Your task to perform on an android device: star an email in the gmail app Image 0: 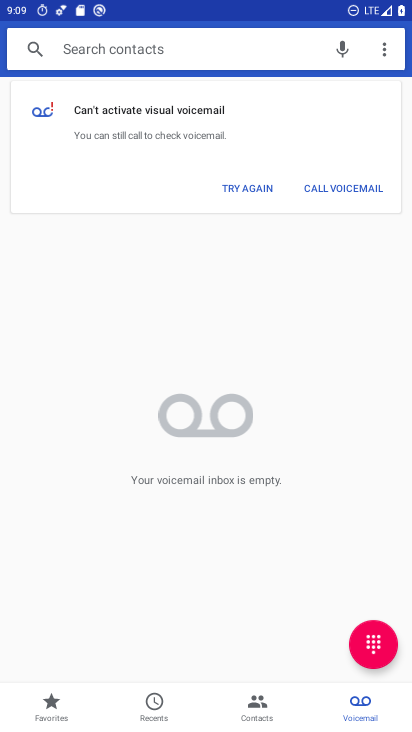
Step 0: drag from (318, 482) to (267, 251)
Your task to perform on an android device: star an email in the gmail app Image 1: 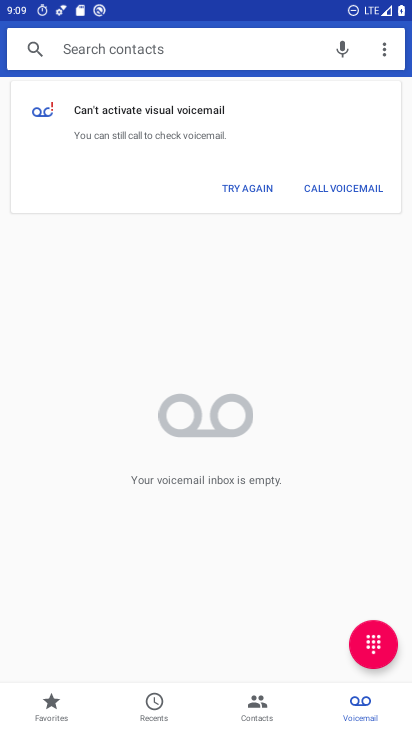
Step 1: drag from (216, 600) to (234, 386)
Your task to perform on an android device: star an email in the gmail app Image 2: 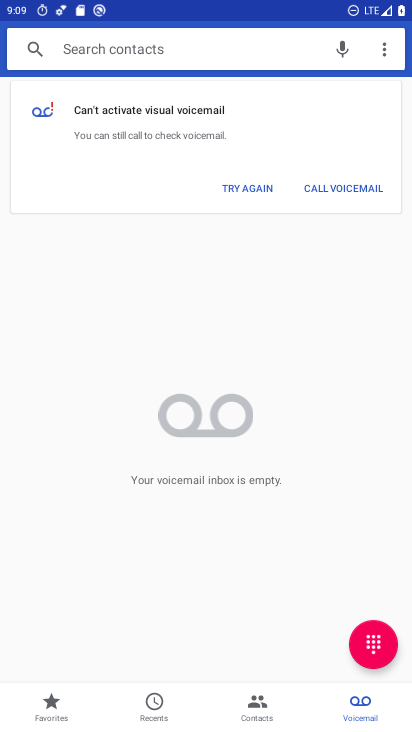
Step 2: drag from (236, 627) to (216, 454)
Your task to perform on an android device: star an email in the gmail app Image 3: 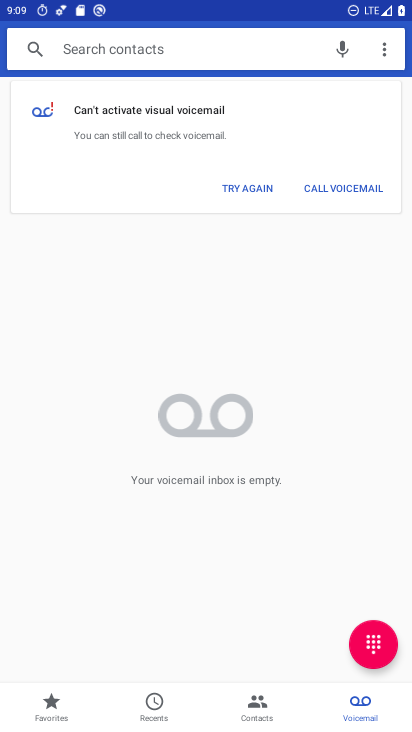
Step 3: click (164, 642)
Your task to perform on an android device: star an email in the gmail app Image 4: 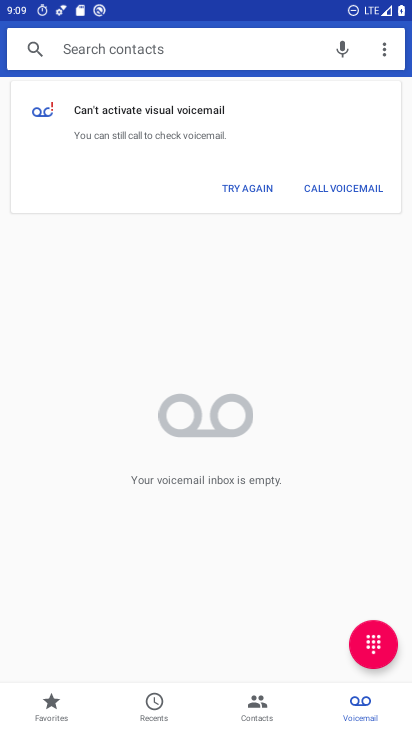
Step 4: click (179, 609)
Your task to perform on an android device: star an email in the gmail app Image 5: 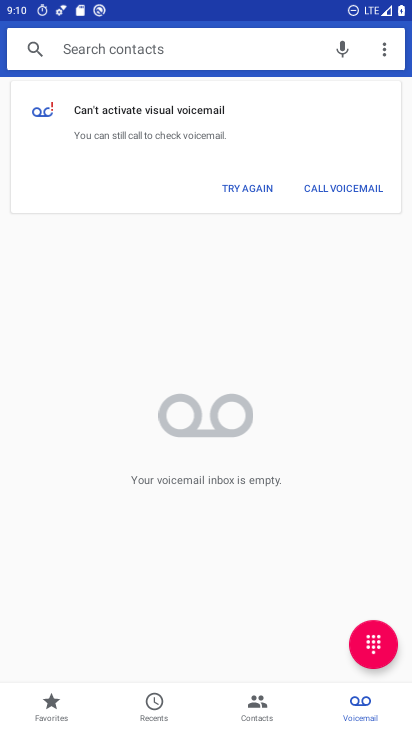
Step 5: drag from (158, 562) to (161, 316)
Your task to perform on an android device: star an email in the gmail app Image 6: 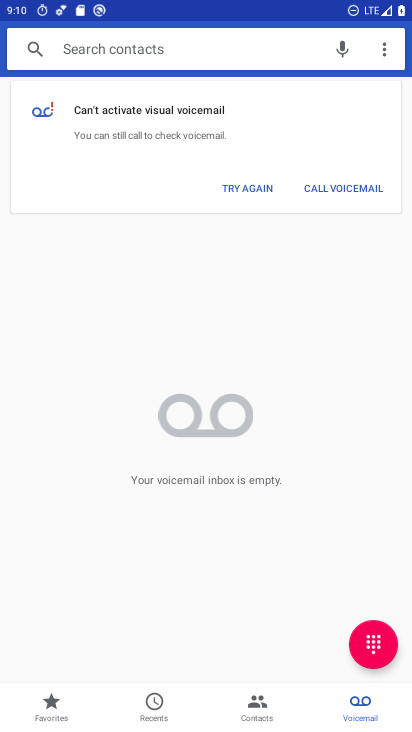
Step 6: press home button
Your task to perform on an android device: star an email in the gmail app Image 7: 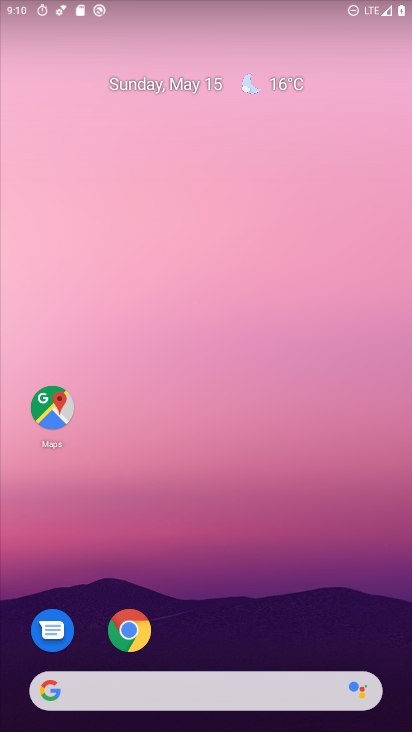
Step 7: drag from (209, 355) to (260, 198)
Your task to perform on an android device: star an email in the gmail app Image 8: 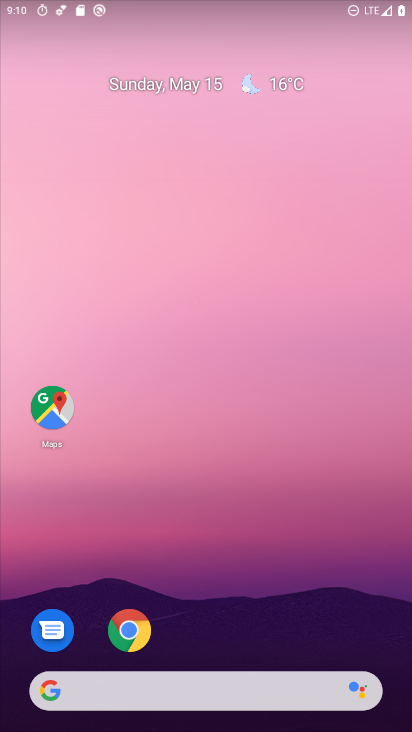
Step 8: drag from (138, 342) to (162, 168)
Your task to perform on an android device: star an email in the gmail app Image 9: 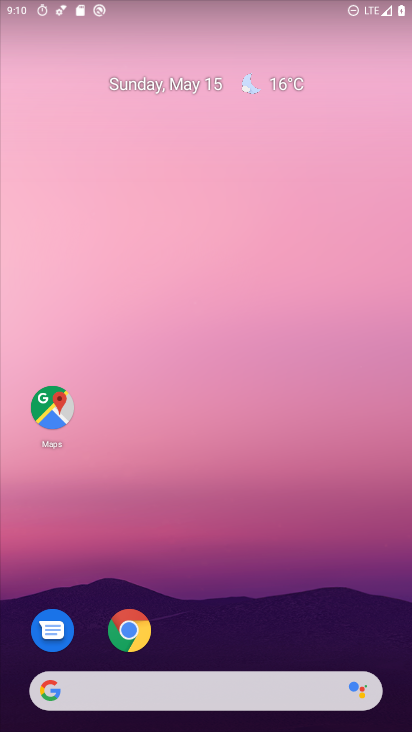
Step 9: drag from (199, 619) to (279, 182)
Your task to perform on an android device: star an email in the gmail app Image 10: 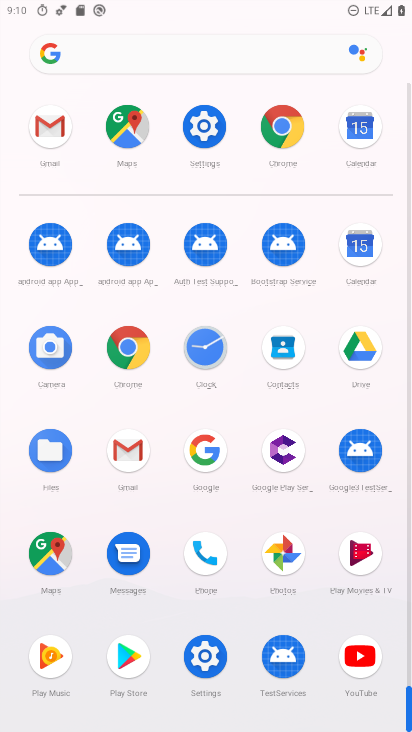
Step 10: click (128, 435)
Your task to perform on an android device: star an email in the gmail app Image 11: 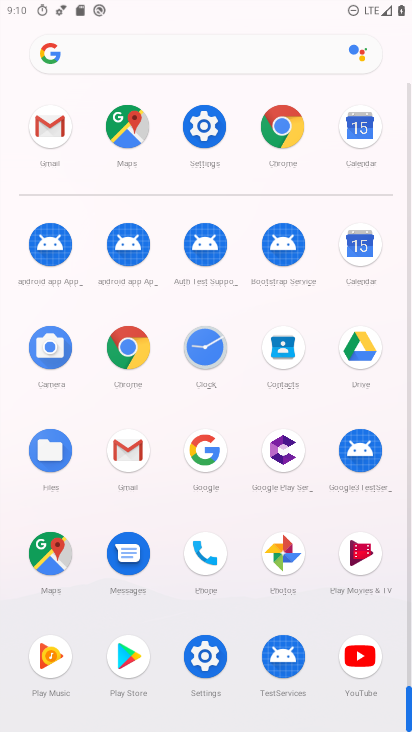
Step 11: click (128, 436)
Your task to perform on an android device: star an email in the gmail app Image 12: 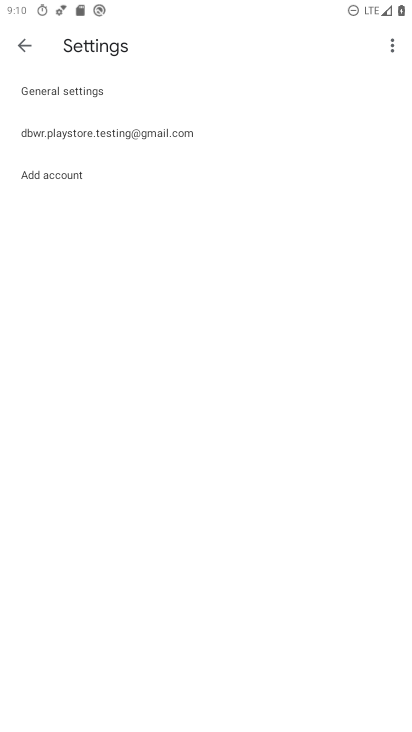
Step 12: click (1, 42)
Your task to perform on an android device: star an email in the gmail app Image 13: 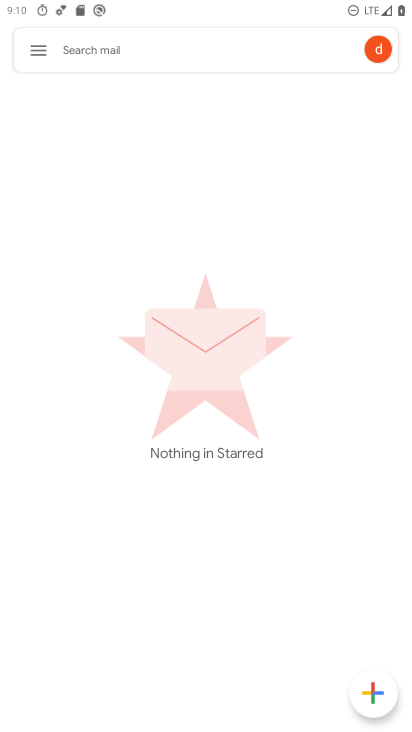
Step 13: click (22, 58)
Your task to perform on an android device: star an email in the gmail app Image 14: 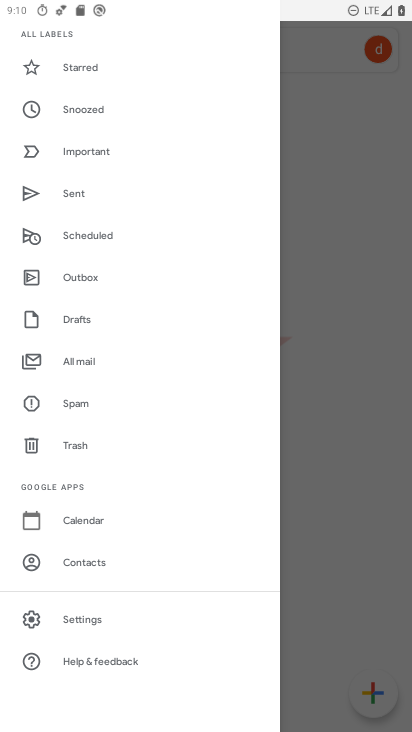
Step 14: click (137, 67)
Your task to perform on an android device: star an email in the gmail app Image 15: 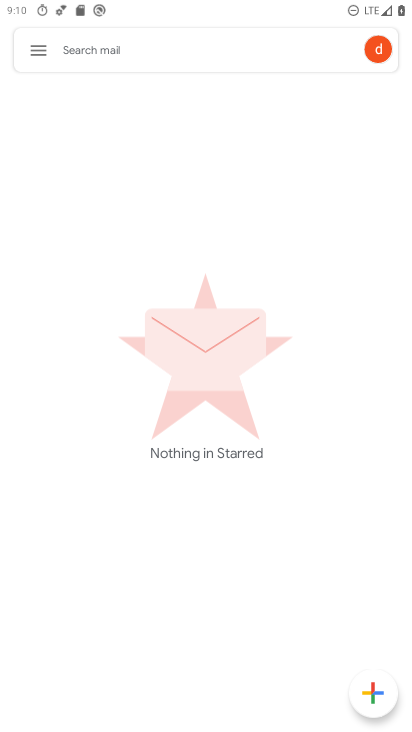
Step 15: task complete